Your task to perform on an android device: check battery use Image 0: 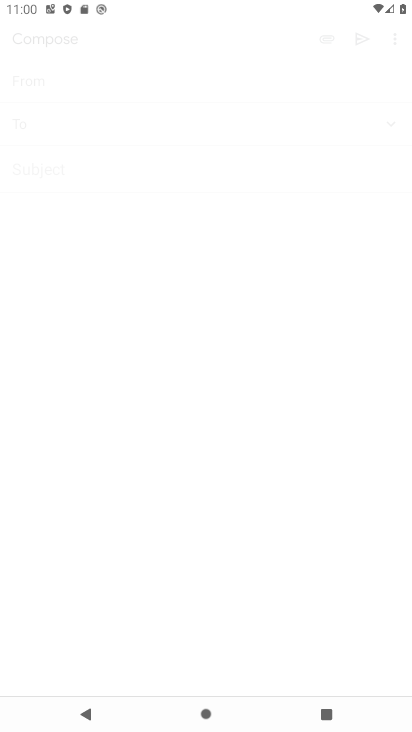
Step 0: drag from (290, 601) to (191, 123)
Your task to perform on an android device: check battery use Image 1: 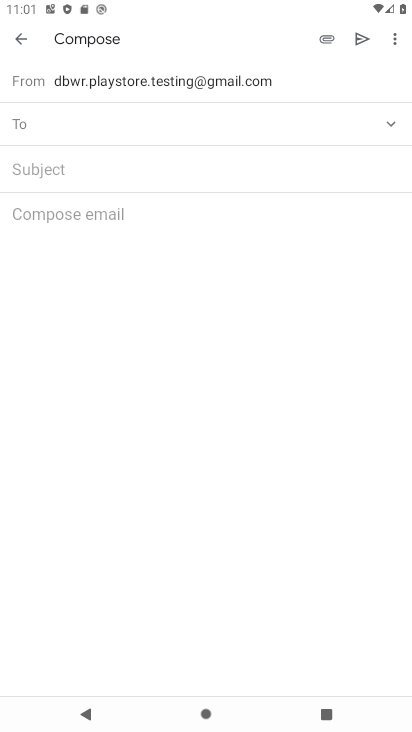
Step 1: press back button
Your task to perform on an android device: check battery use Image 2: 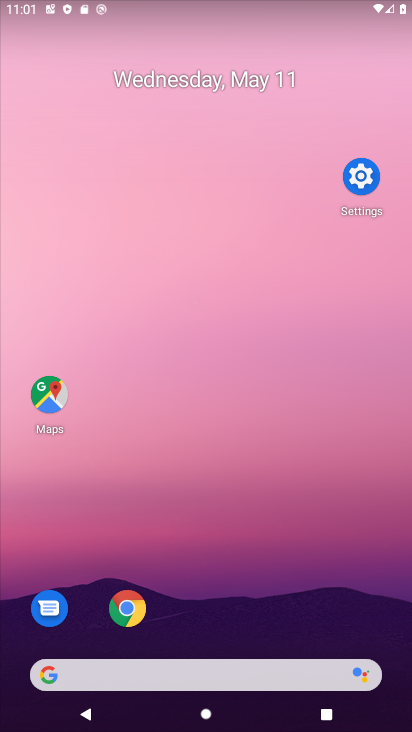
Step 2: drag from (317, 570) to (193, 287)
Your task to perform on an android device: check battery use Image 3: 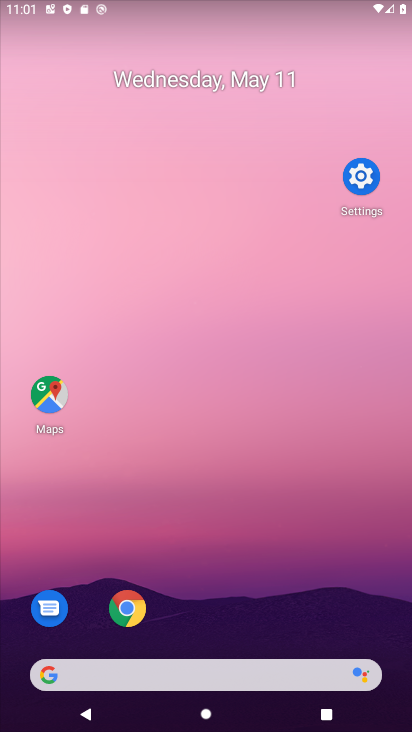
Step 3: drag from (254, 550) to (257, 373)
Your task to perform on an android device: check battery use Image 4: 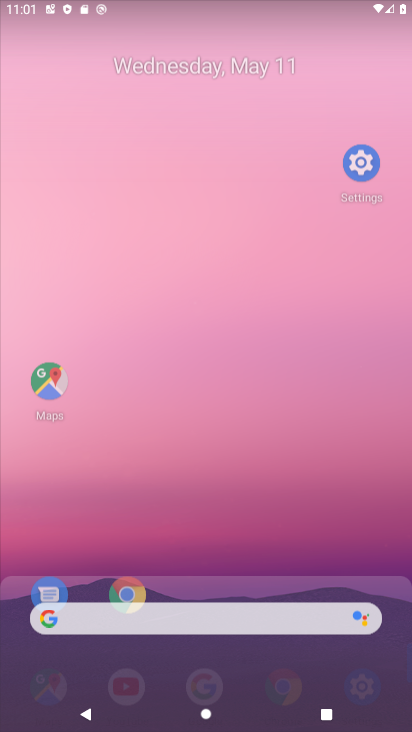
Step 4: drag from (334, 507) to (81, 35)
Your task to perform on an android device: check battery use Image 5: 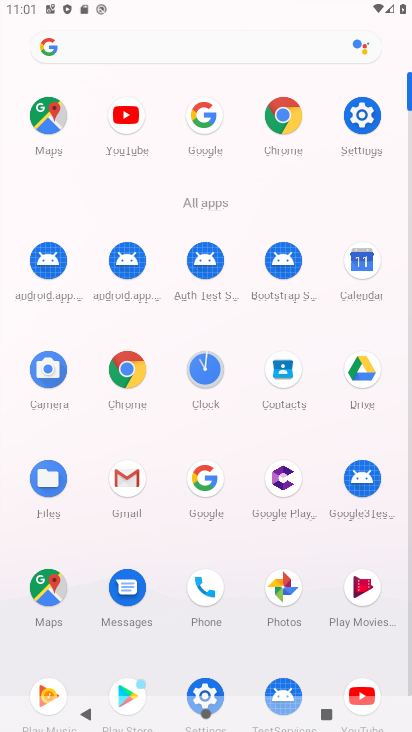
Step 5: click (354, 120)
Your task to perform on an android device: check battery use Image 6: 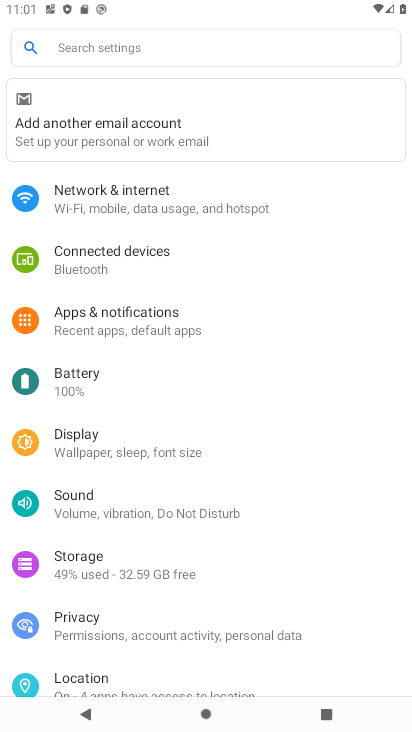
Step 6: click (56, 382)
Your task to perform on an android device: check battery use Image 7: 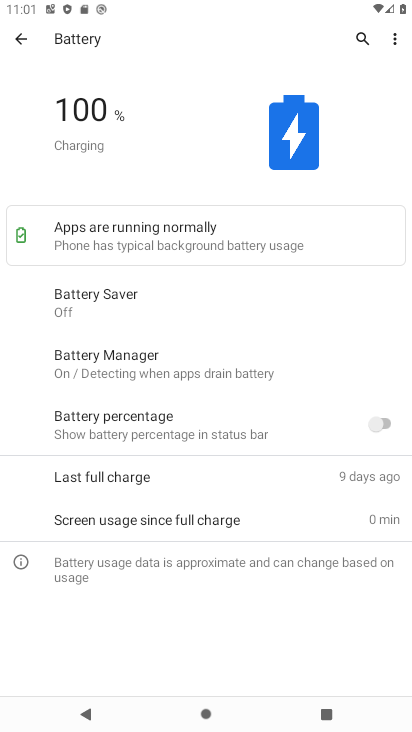
Step 7: task complete